Your task to perform on an android device: Do I have any events this weekend? Image 0: 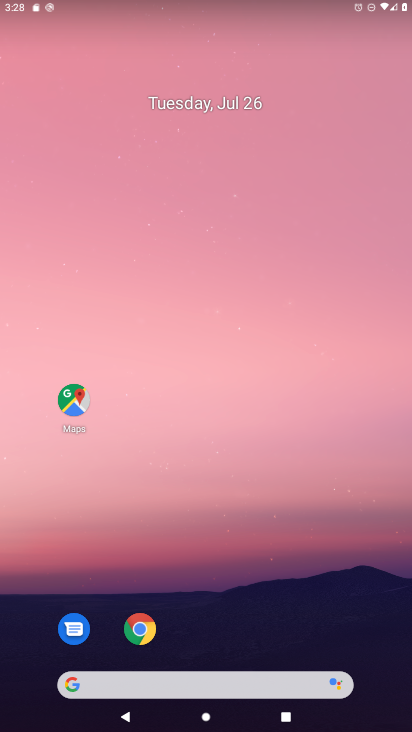
Step 0: drag from (217, 628) to (204, 194)
Your task to perform on an android device: Do I have any events this weekend? Image 1: 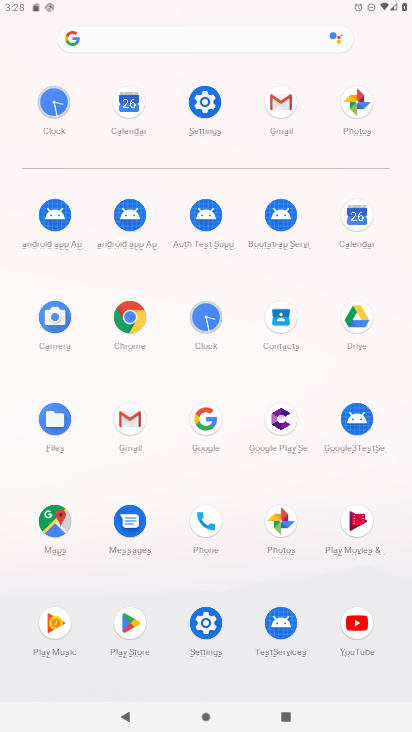
Step 1: click (358, 227)
Your task to perform on an android device: Do I have any events this weekend? Image 2: 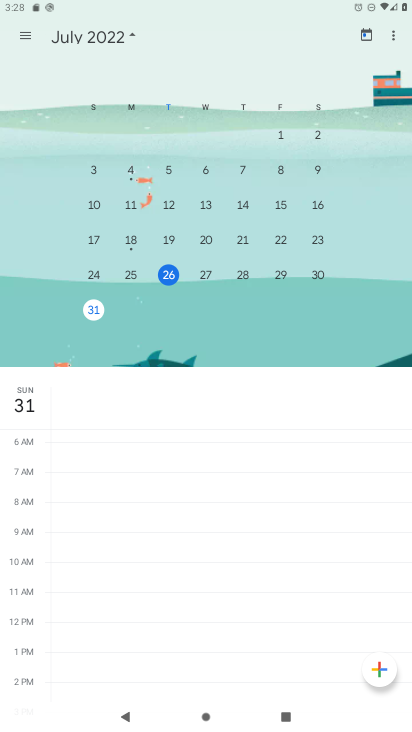
Step 2: click (312, 277)
Your task to perform on an android device: Do I have any events this weekend? Image 3: 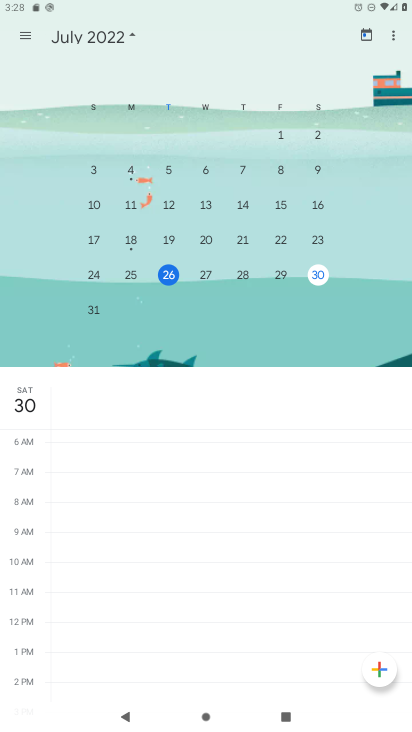
Step 3: task complete